Your task to perform on an android device: Go to network settings Image 0: 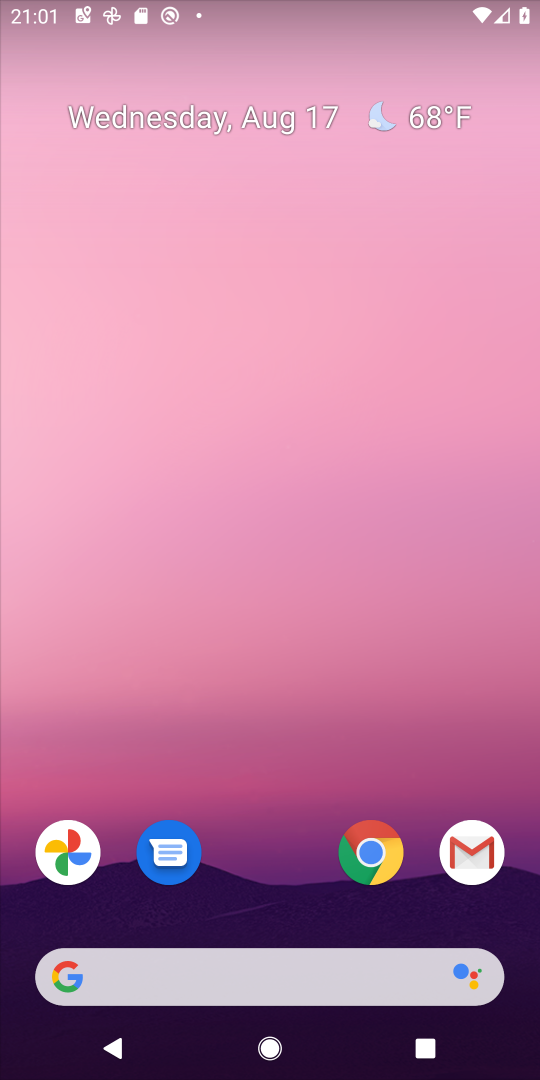
Step 0: drag from (274, 898) to (311, 413)
Your task to perform on an android device: Go to network settings Image 1: 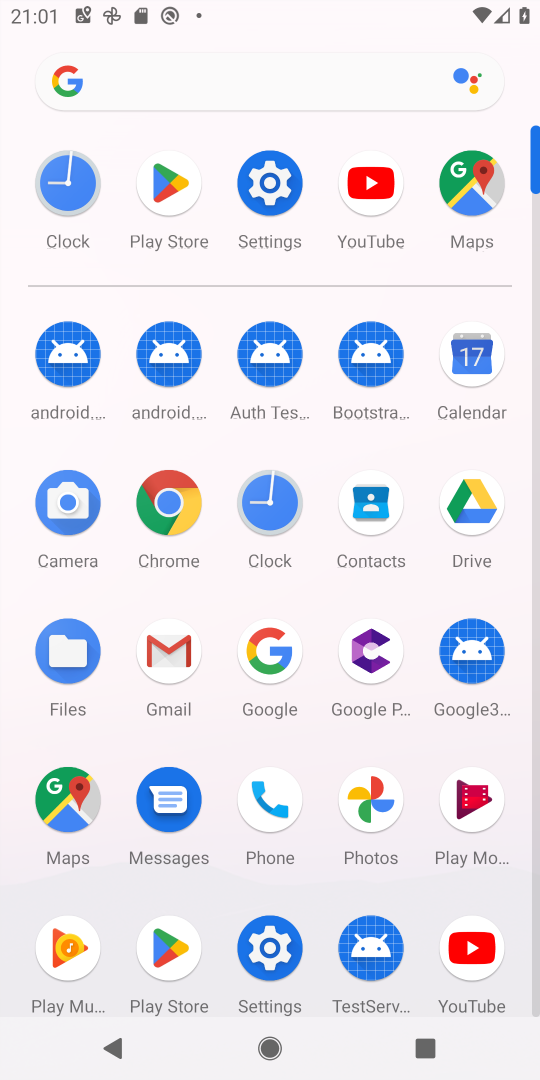
Step 1: click (266, 173)
Your task to perform on an android device: Go to network settings Image 2: 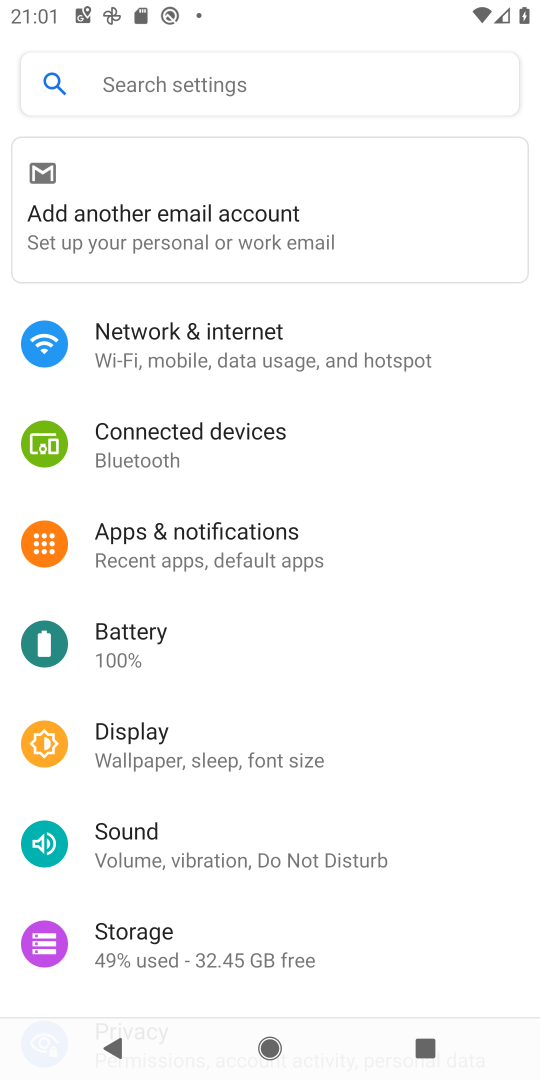
Step 2: click (187, 331)
Your task to perform on an android device: Go to network settings Image 3: 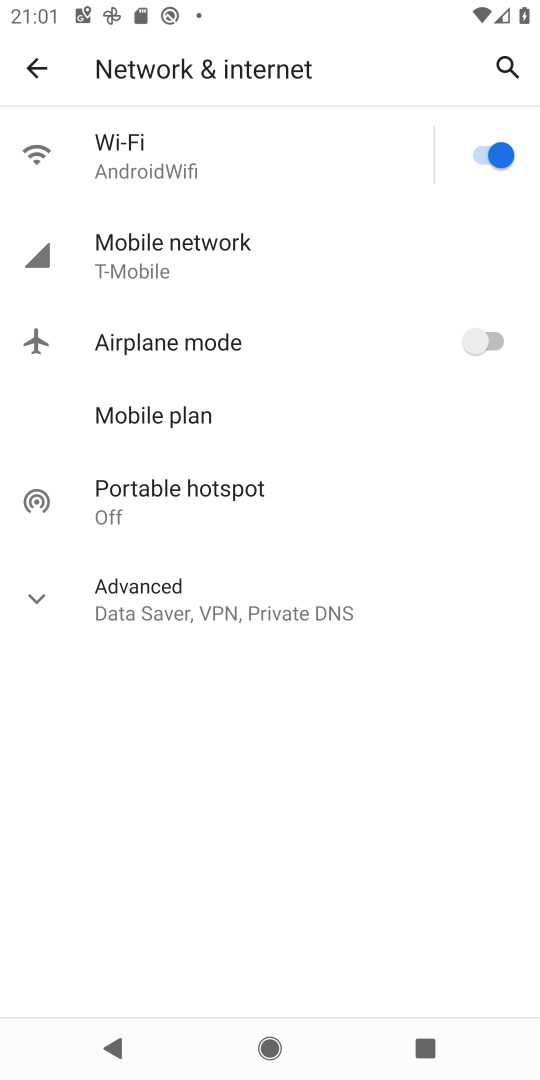
Step 3: task complete